Your task to perform on an android device: change the clock display to show seconds Image 0: 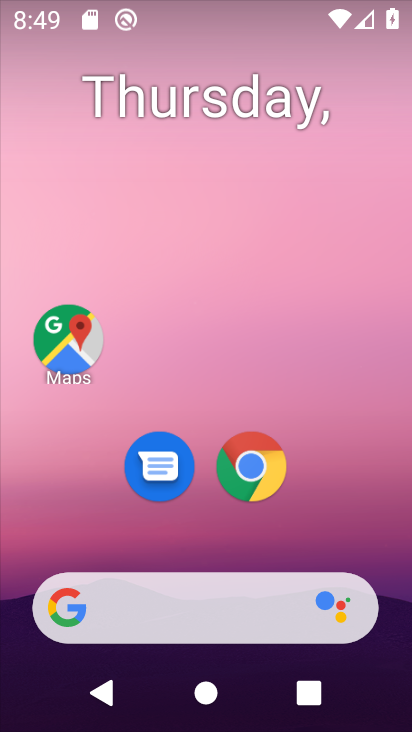
Step 0: drag from (196, 463) to (142, 94)
Your task to perform on an android device: change the clock display to show seconds Image 1: 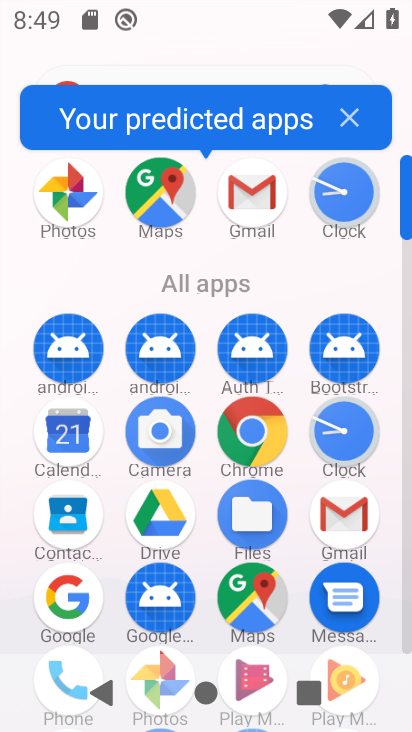
Step 1: drag from (205, 558) to (181, 133)
Your task to perform on an android device: change the clock display to show seconds Image 2: 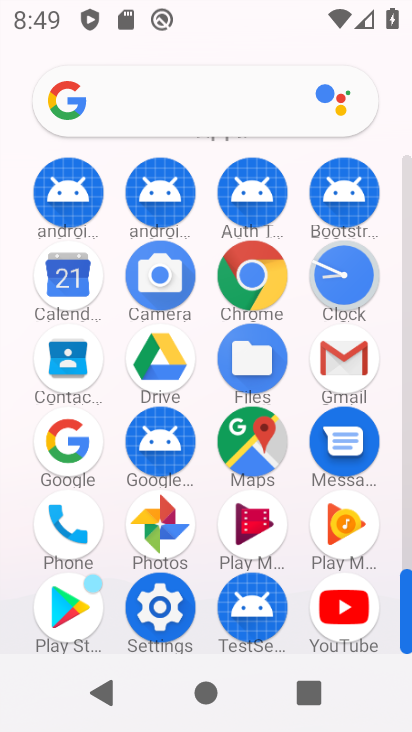
Step 2: click (173, 598)
Your task to perform on an android device: change the clock display to show seconds Image 3: 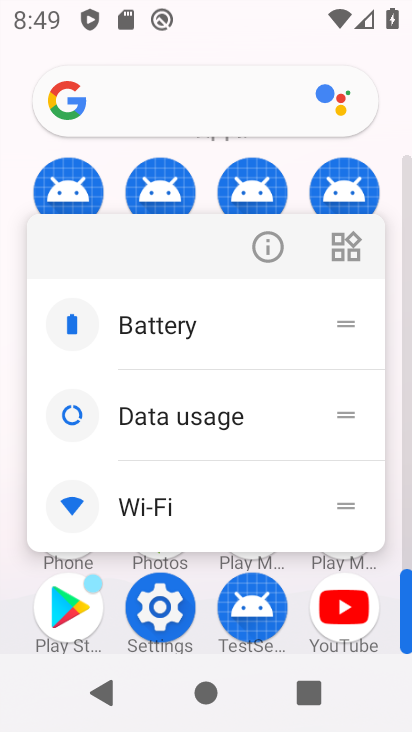
Step 3: click (395, 188)
Your task to perform on an android device: change the clock display to show seconds Image 4: 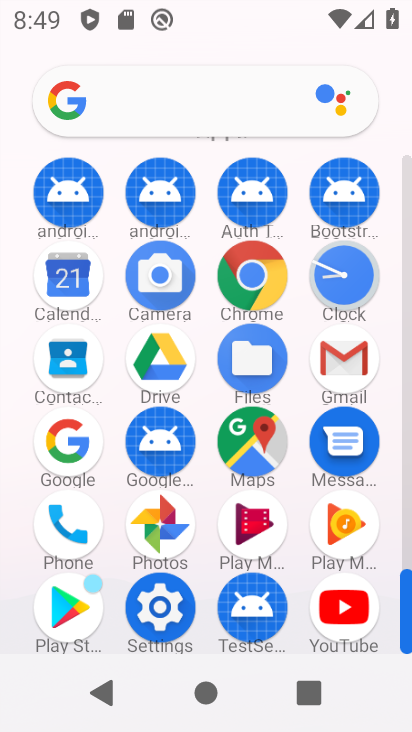
Step 4: click (357, 282)
Your task to perform on an android device: change the clock display to show seconds Image 5: 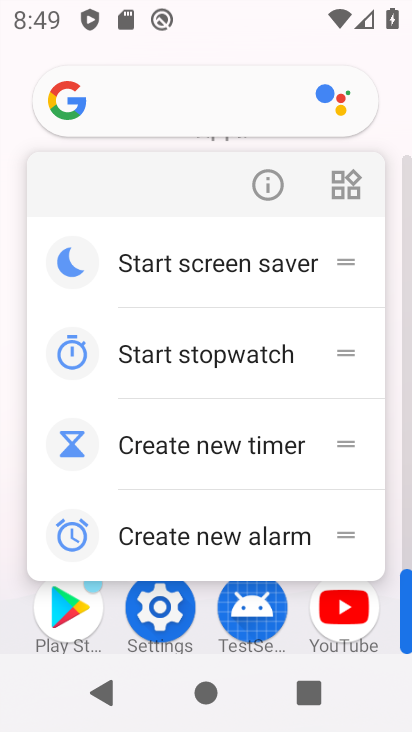
Step 5: click (393, 247)
Your task to perform on an android device: change the clock display to show seconds Image 6: 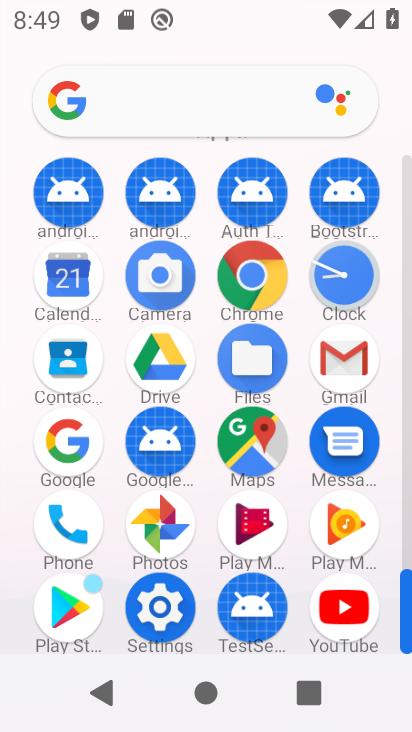
Step 6: click (370, 260)
Your task to perform on an android device: change the clock display to show seconds Image 7: 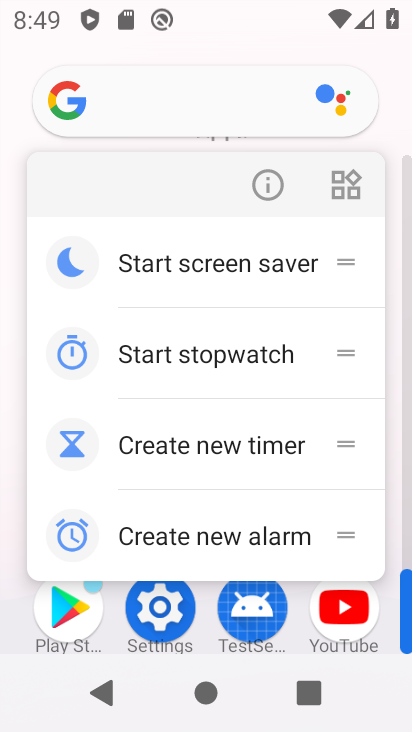
Step 7: click (393, 261)
Your task to perform on an android device: change the clock display to show seconds Image 8: 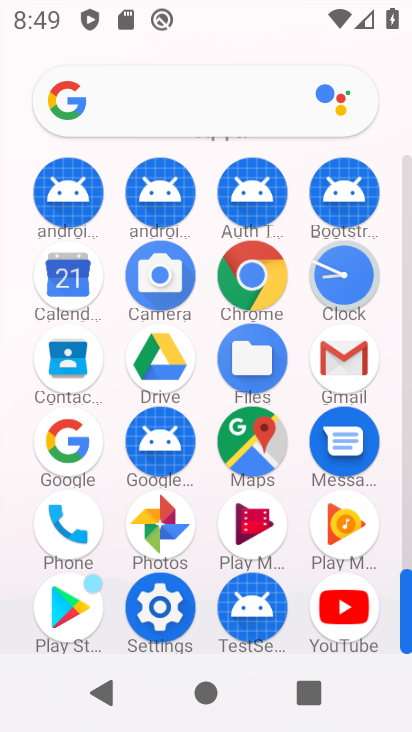
Step 8: click (335, 257)
Your task to perform on an android device: change the clock display to show seconds Image 9: 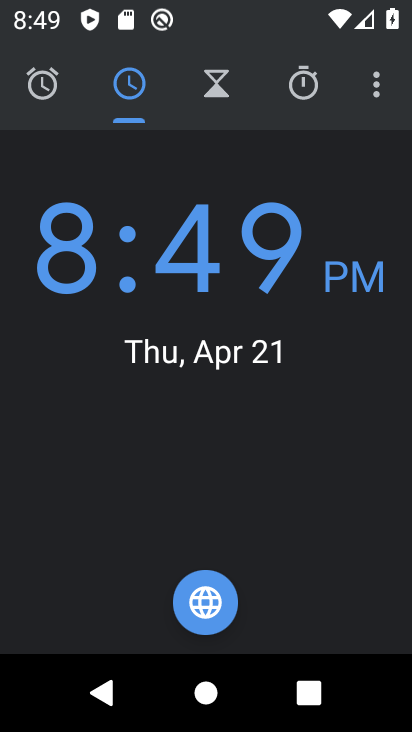
Step 9: click (375, 69)
Your task to perform on an android device: change the clock display to show seconds Image 10: 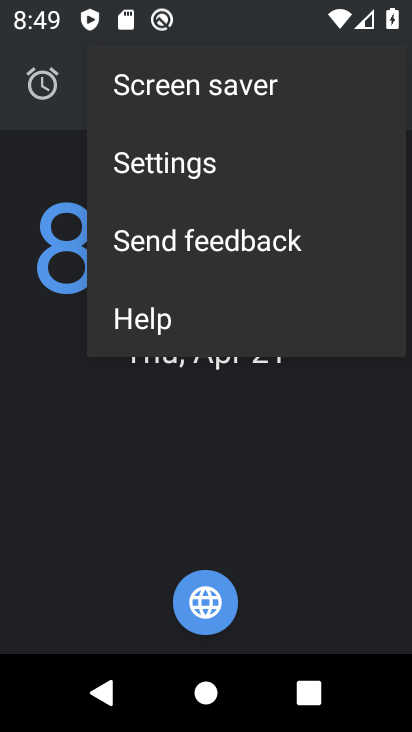
Step 10: click (185, 160)
Your task to perform on an android device: change the clock display to show seconds Image 11: 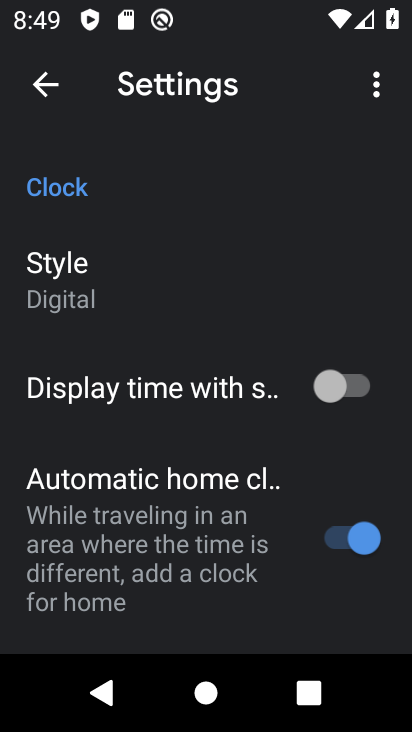
Step 11: click (74, 265)
Your task to perform on an android device: change the clock display to show seconds Image 12: 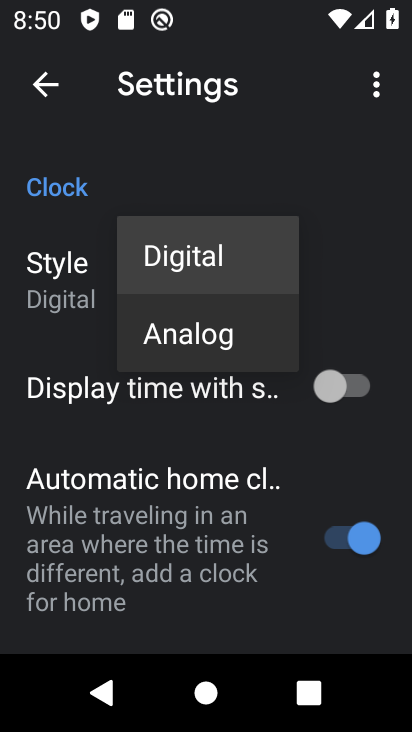
Step 12: click (351, 374)
Your task to perform on an android device: change the clock display to show seconds Image 13: 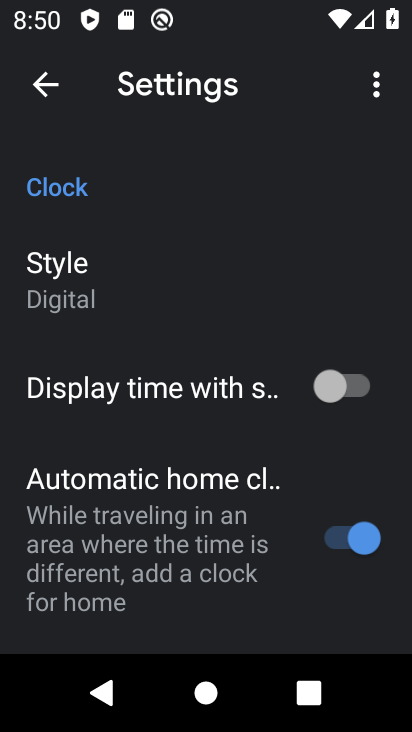
Step 13: click (351, 374)
Your task to perform on an android device: change the clock display to show seconds Image 14: 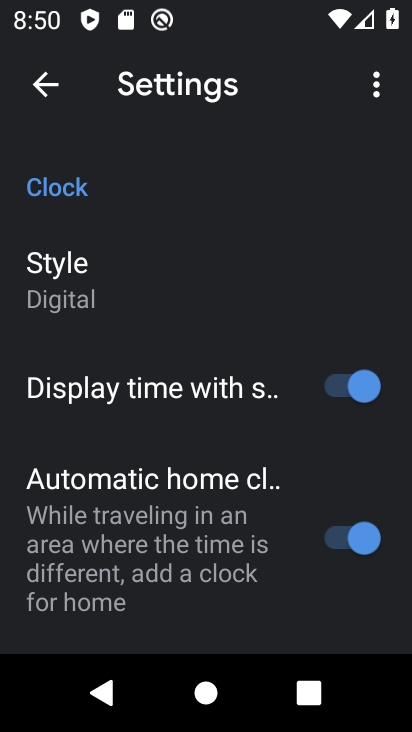
Step 14: task complete